Your task to perform on an android device: check data usage Image 0: 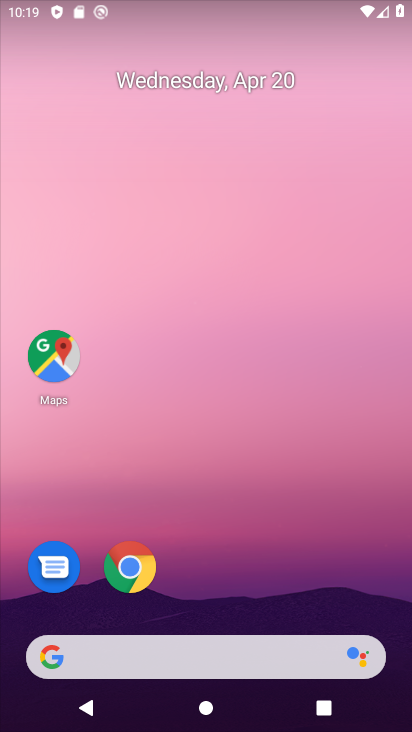
Step 0: drag from (241, 599) to (314, 72)
Your task to perform on an android device: check data usage Image 1: 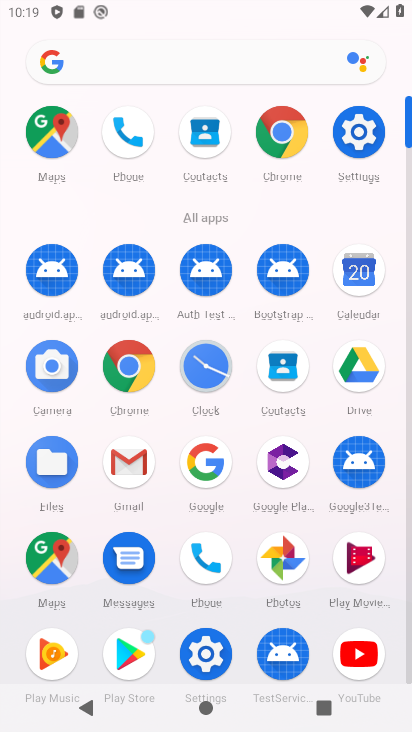
Step 1: click (360, 131)
Your task to perform on an android device: check data usage Image 2: 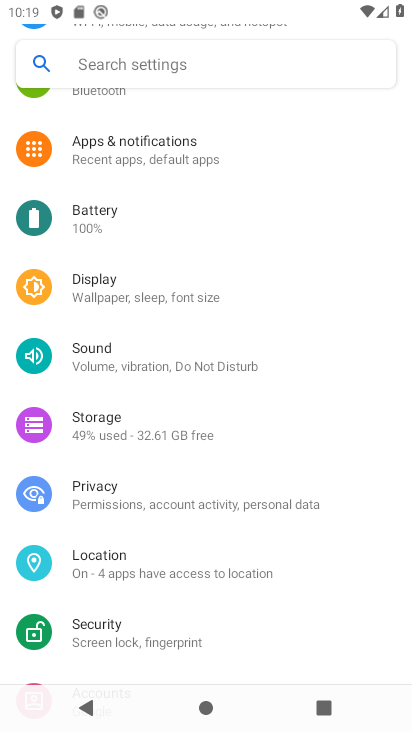
Step 2: drag from (158, 274) to (174, 367)
Your task to perform on an android device: check data usage Image 3: 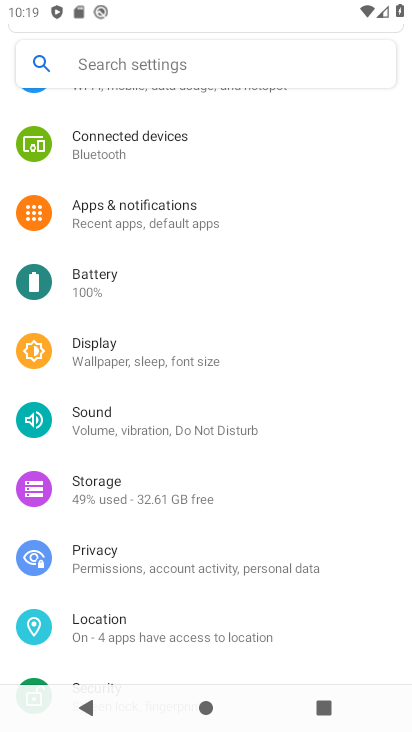
Step 3: drag from (230, 203) to (265, 337)
Your task to perform on an android device: check data usage Image 4: 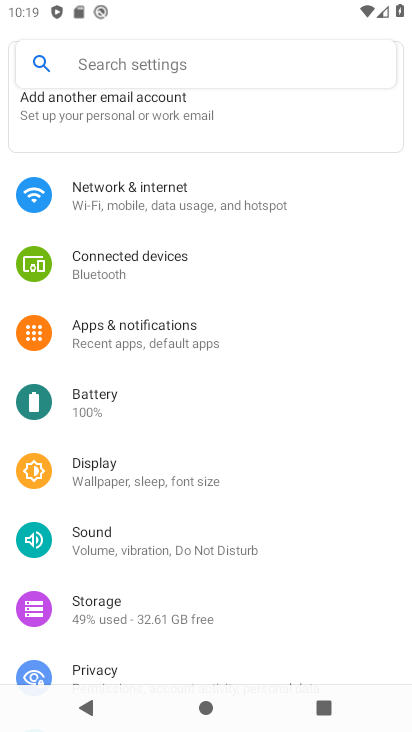
Step 4: click (182, 206)
Your task to perform on an android device: check data usage Image 5: 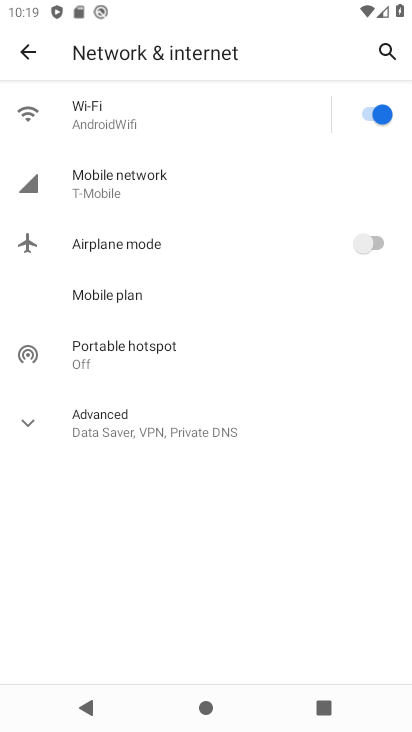
Step 5: click (132, 183)
Your task to perform on an android device: check data usage Image 6: 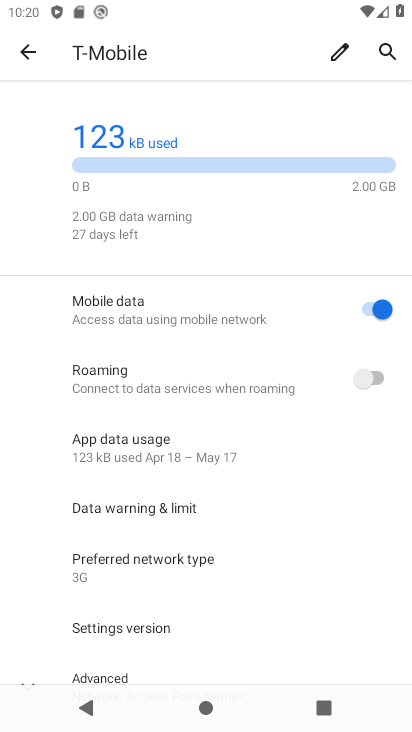
Step 6: task complete